Your task to perform on an android device: snooze an email in the gmail app Image 0: 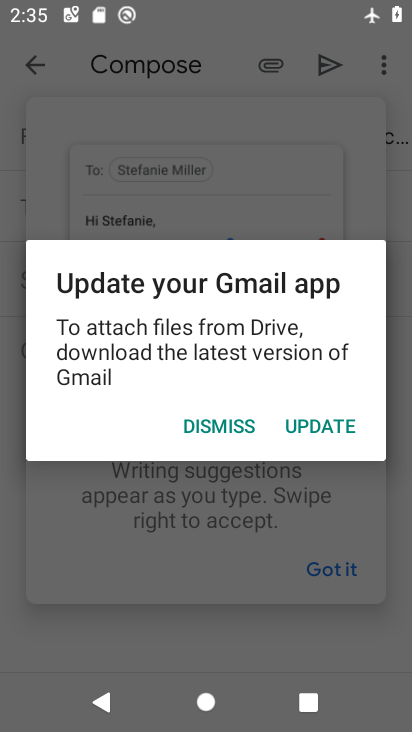
Step 0: press home button
Your task to perform on an android device: snooze an email in the gmail app Image 1: 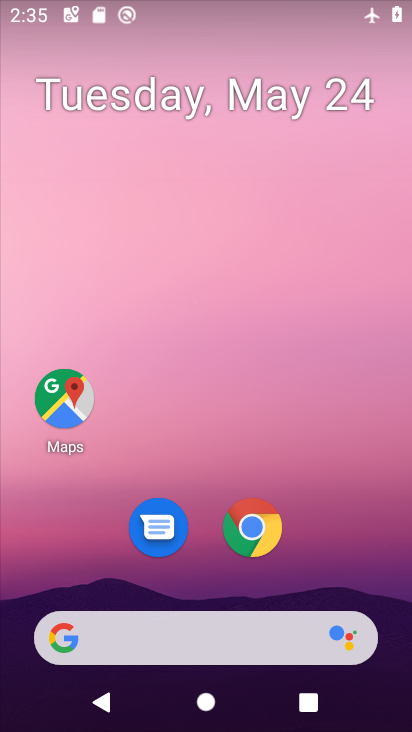
Step 1: drag from (347, 516) to (382, 5)
Your task to perform on an android device: snooze an email in the gmail app Image 2: 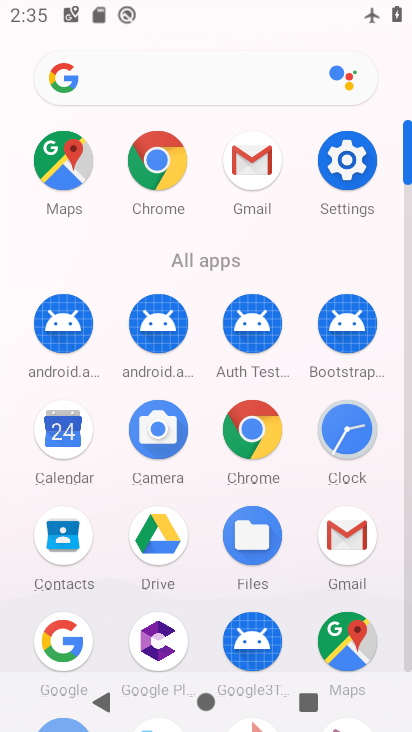
Step 2: click (249, 164)
Your task to perform on an android device: snooze an email in the gmail app Image 3: 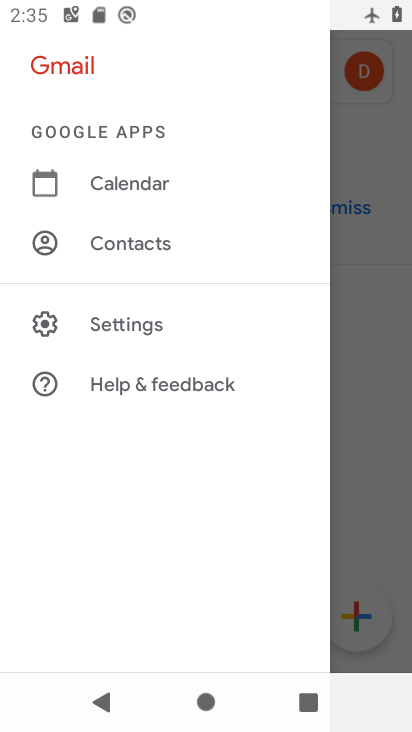
Step 3: drag from (156, 223) to (170, 438)
Your task to perform on an android device: snooze an email in the gmail app Image 4: 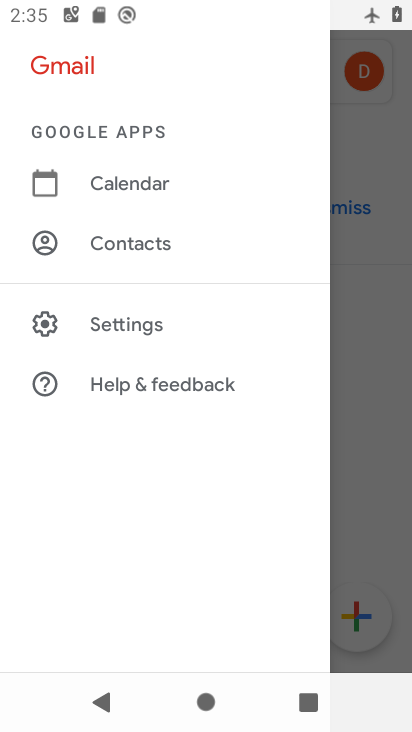
Step 4: click (377, 243)
Your task to perform on an android device: snooze an email in the gmail app Image 5: 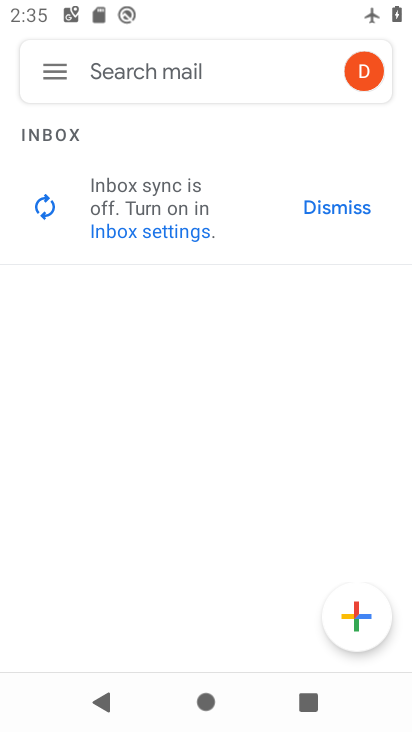
Step 5: task complete